Your task to perform on an android device: Go to CNN.com Image 0: 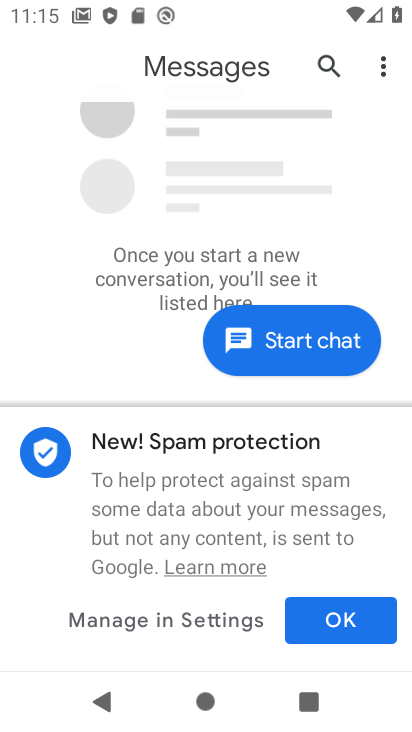
Step 0: press home button
Your task to perform on an android device: Go to CNN.com Image 1: 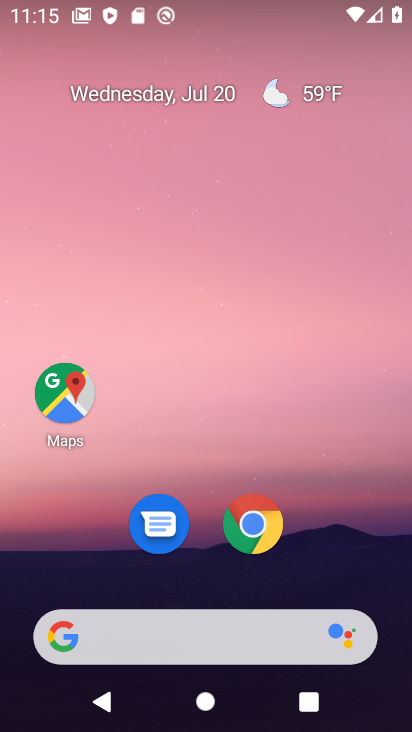
Step 1: click (242, 523)
Your task to perform on an android device: Go to CNN.com Image 2: 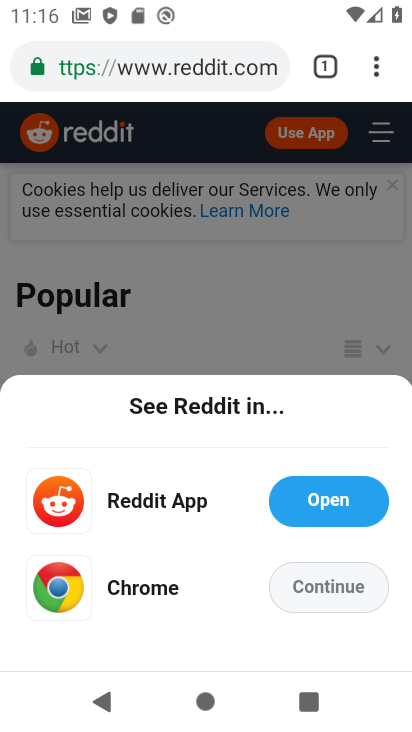
Step 2: drag from (373, 71) to (221, 134)
Your task to perform on an android device: Go to CNN.com Image 3: 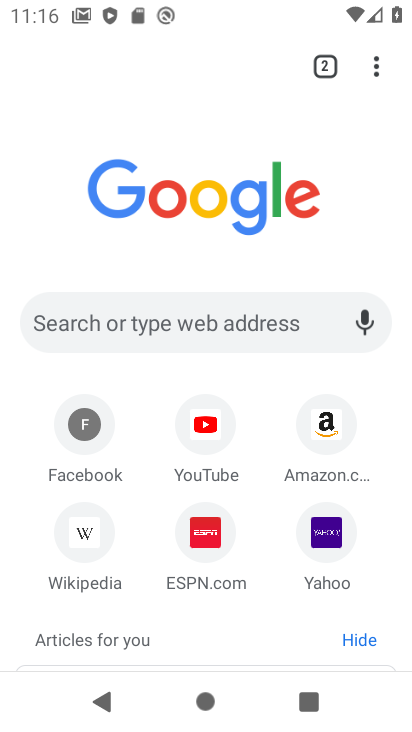
Step 3: click (125, 322)
Your task to perform on an android device: Go to CNN.com Image 4: 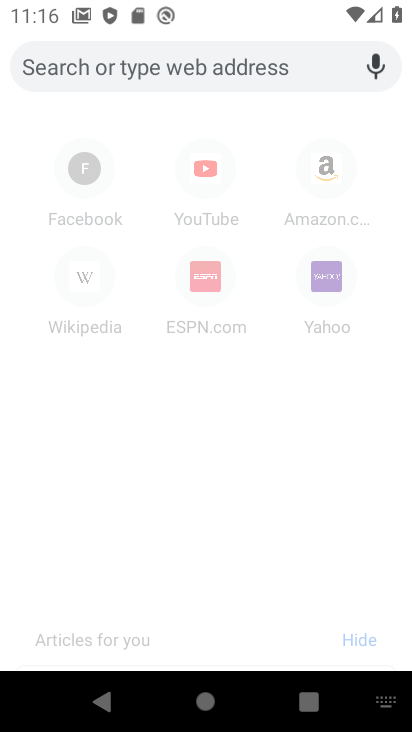
Step 4: type "cnn.com"
Your task to perform on an android device: Go to CNN.com Image 5: 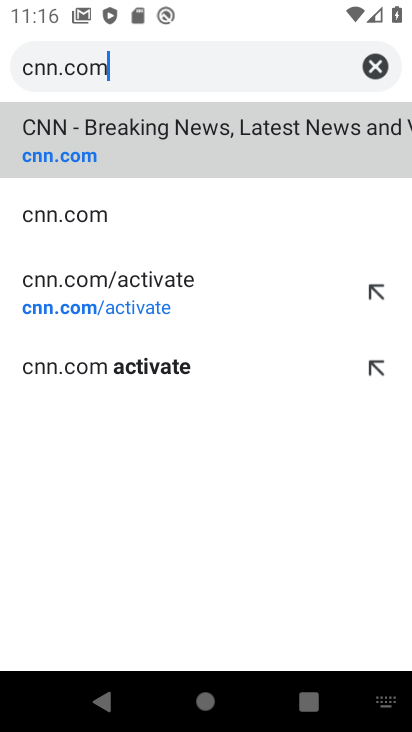
Step 5: click (154, 131)
Your task to perform on an android device: Go to CNN.com Image 6: 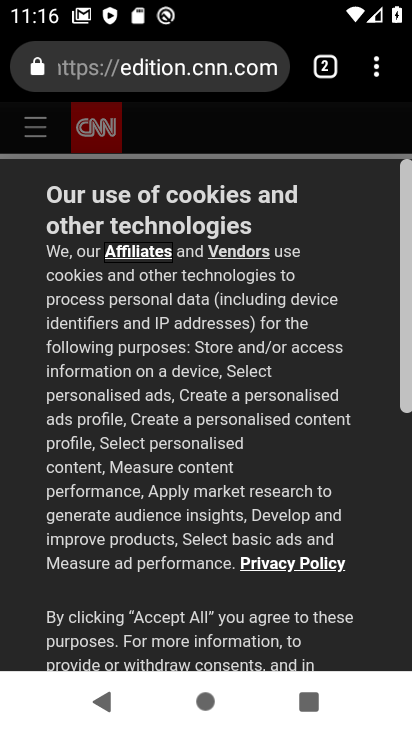
Step 6: drag from (165, 610) to (211, 167)
Your task to perform on an android device: Go to CNN.com Image 7: 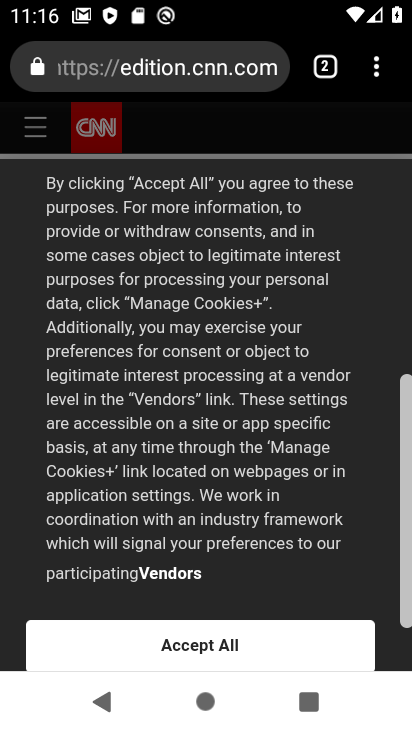
Step 7: drag from (198, 376) to (225, 219)
Your task to perform on an android device: Go to CNN.com Image 8: 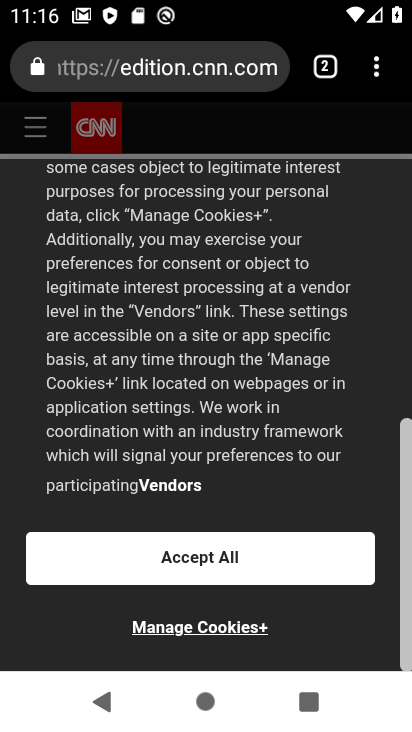
Step 8: click (211, 551)
Your task to perform on an android device: Go to CNN.com Image 9: 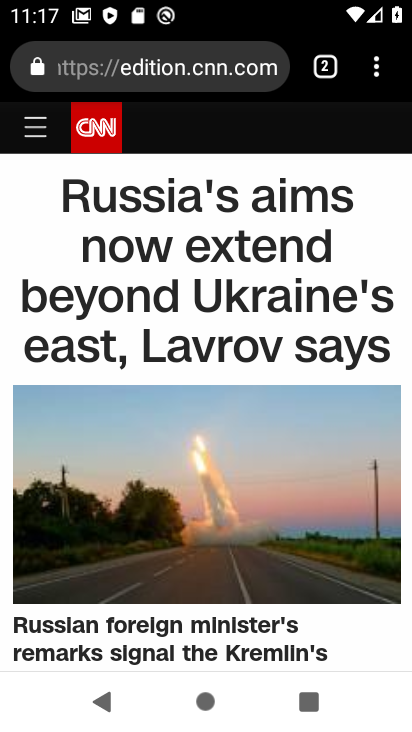
Step 9: task complete